Your task to perform on an android device: change timer sound Image 0: 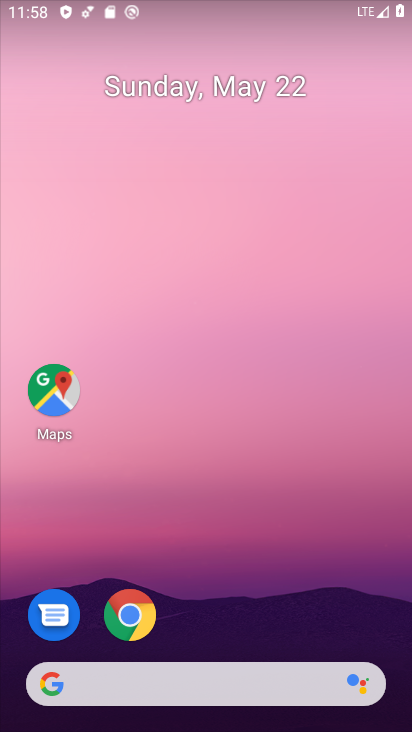
Step 0: drag from (204, 607) to (302, 59)
Your task to perform on an android device: change timer sound Image 1: 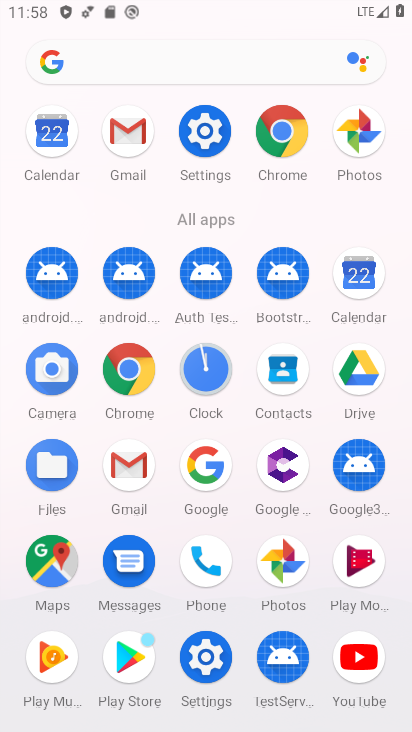
Step 1: click (202, 118)
Your task to perform on an android device: change timer sound Image 2: 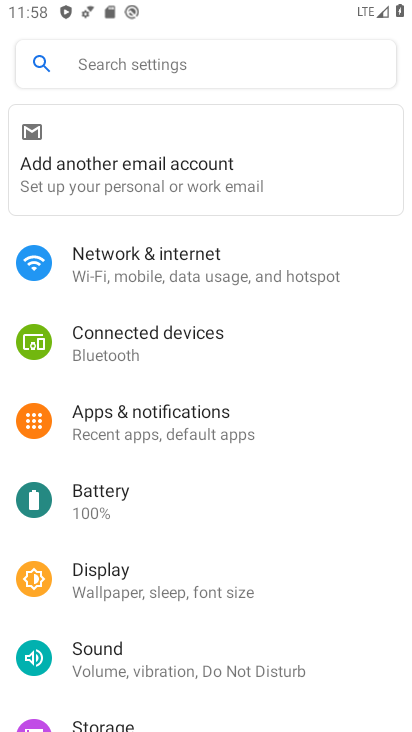
Step 2: press back button
Your task to perform on an android device: change timer sound Image 3: 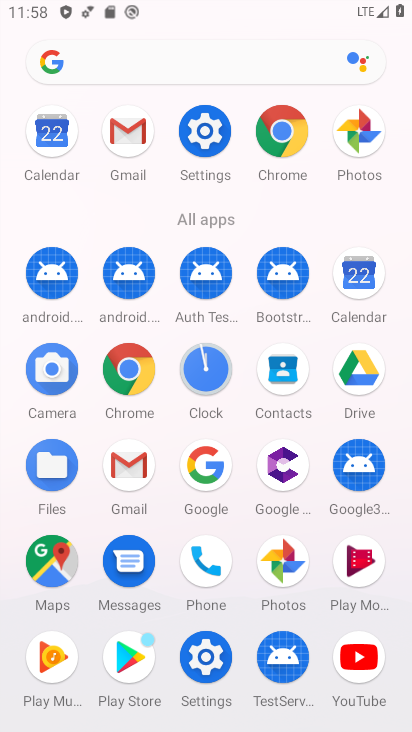
Step 3: click (192, 379)
Your task to perform on an android device: change timer sound Image 4: 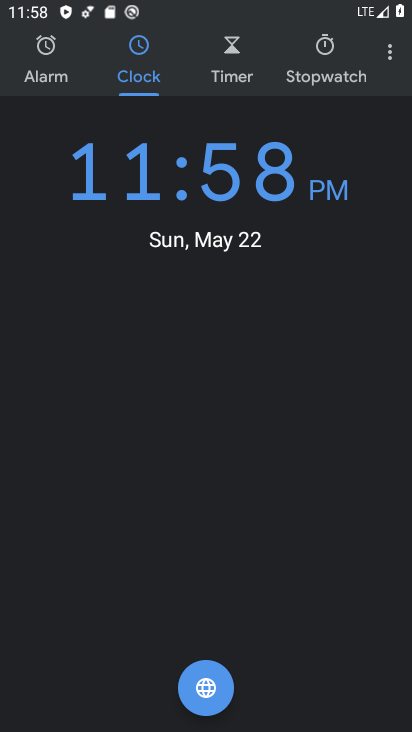
Step 4: click (389, 48)
Your task to perform on an android device: change timer sound Image 5: 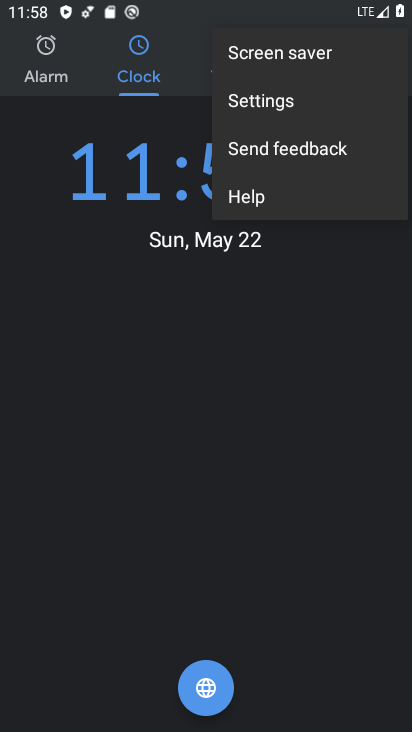
Step 5: click (248, 102)
Your task to perform on an android device: change timer sound Image 6: 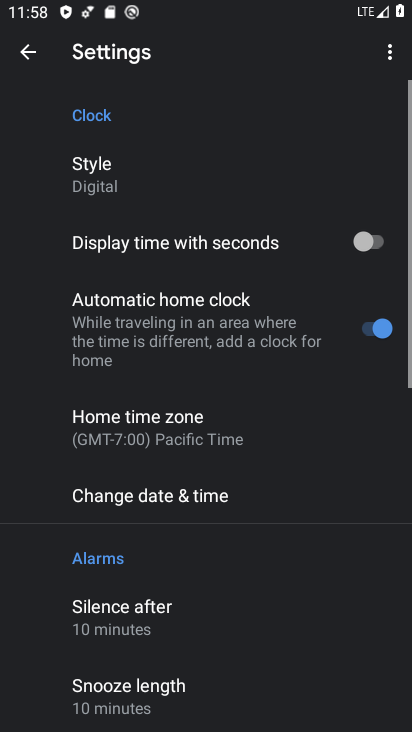
Step 6: drag from (162, 635) to (245, 149)
Your task to perform on an android device: change timer sound Image 7: 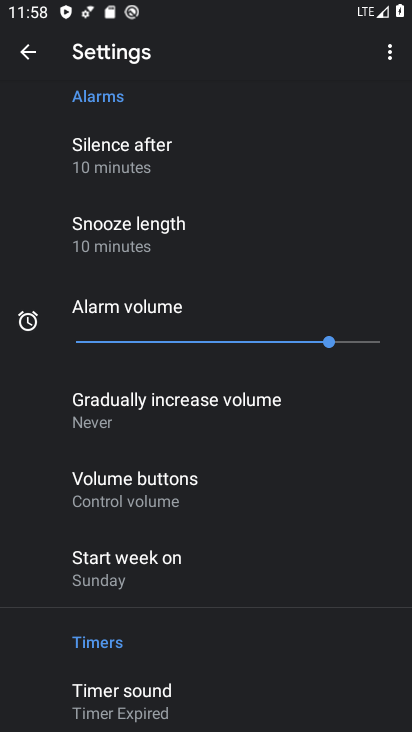
Step 7: click (107, 698)
Your task to perform on an android device: change timer sound Image 8: 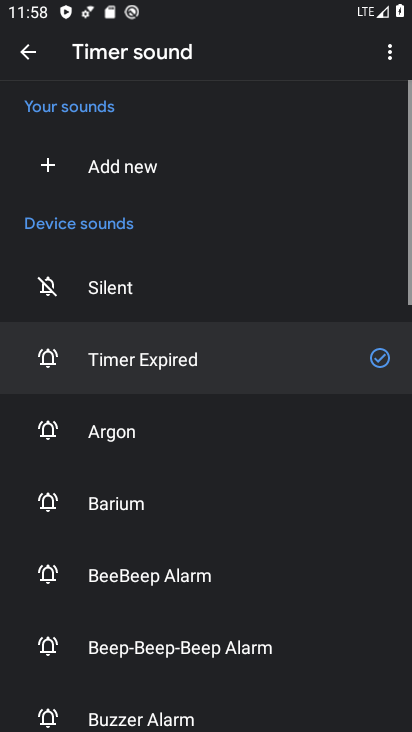
Step 8: click (91, 433)
Your task to perform on an android device: change timer sound Image 9: 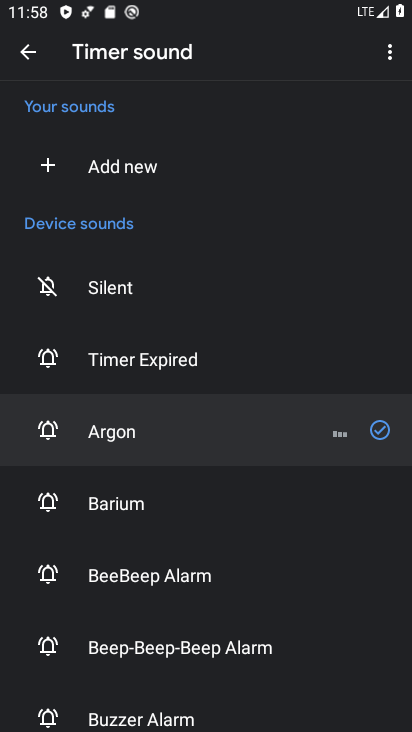
Step 9: task complete